Your task to perform on an android device: Open accessibility settings Image 0: 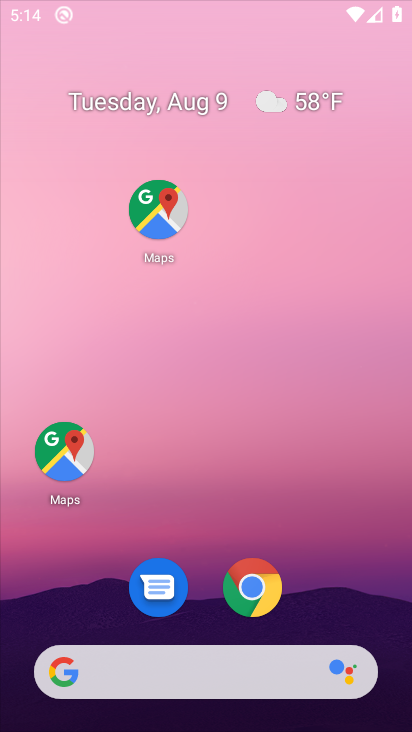
Step 0: drag from (247, 656) to (180, 80)
Your task to perform on an android device: Open accessibility settings Image 1: 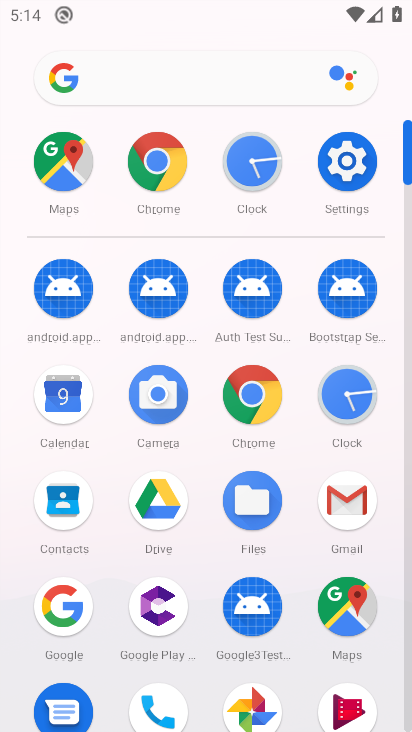
Step 1: click (334, 177)
Your task to perform on an android device: Open accessibility settings Image 2: 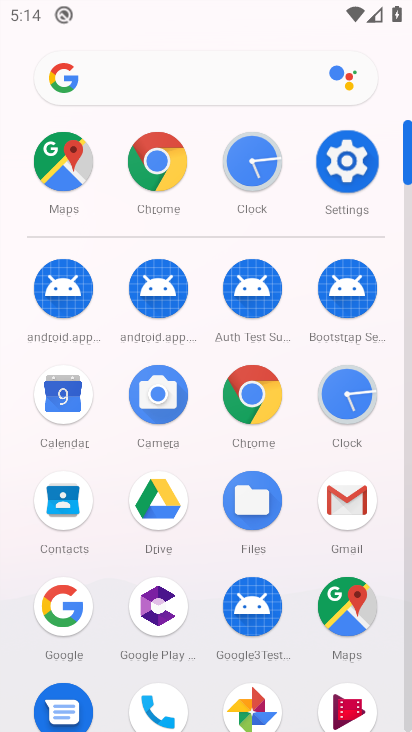
Step 2: click (332, 174)
Your task to perform on an android device: Open accessibility settings Image 3: 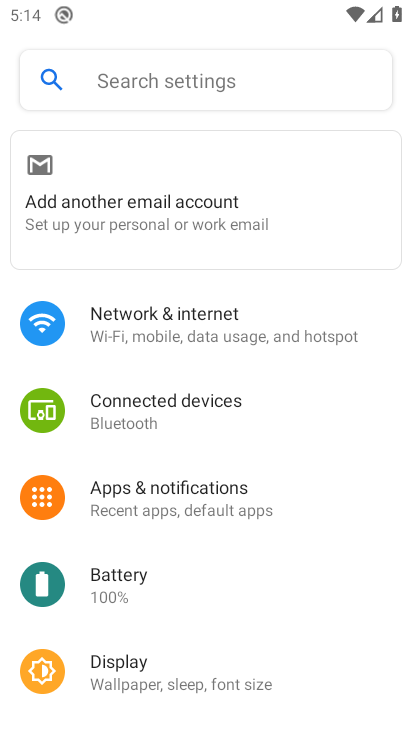
Step 3: drag from (152, 612) to (135, 262)
Your task to perform on an android device: Open accessibility settings Image 4: 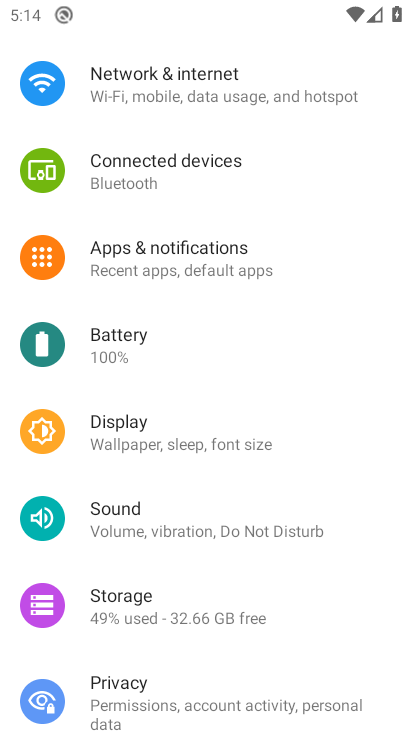
Step 4: drag from (171, 541) to (171, 220)
Your task to perform on an android device: Open accessibility settings Image 5: 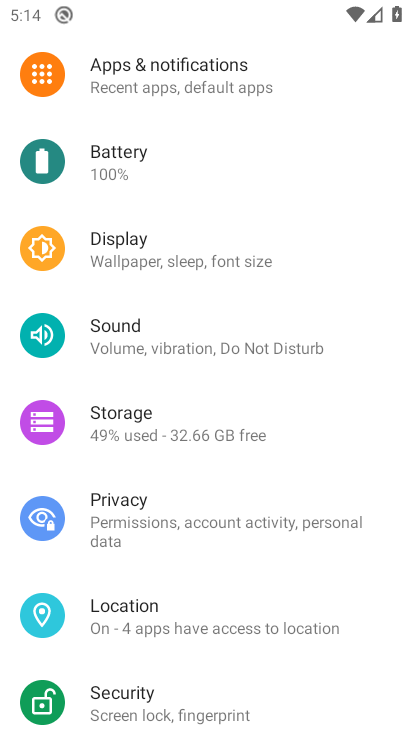
Step 5: drag from (181, 550) to (163, 273)
Your task to perform on an android device: Open accessibility settings Image 6: 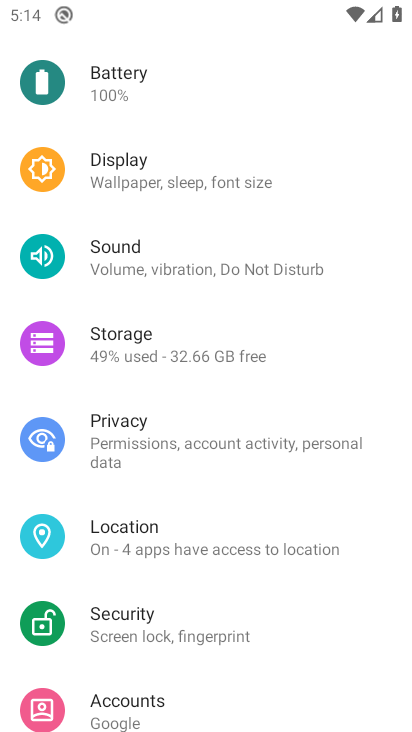
Step 6: drag from (214, 634) to (214, 276)
Your task to perform on an android device: Open accessibility settings Image 7: 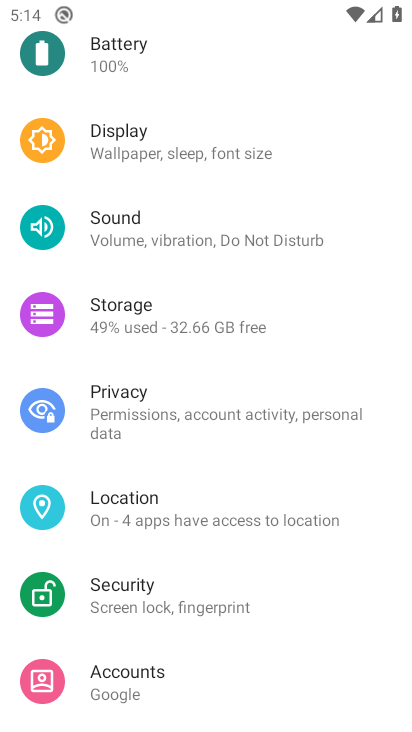
Step 7: drag from (238, 560) to (229, 171)
Your task to perform on an android device: Open accessibility settings Image 8: 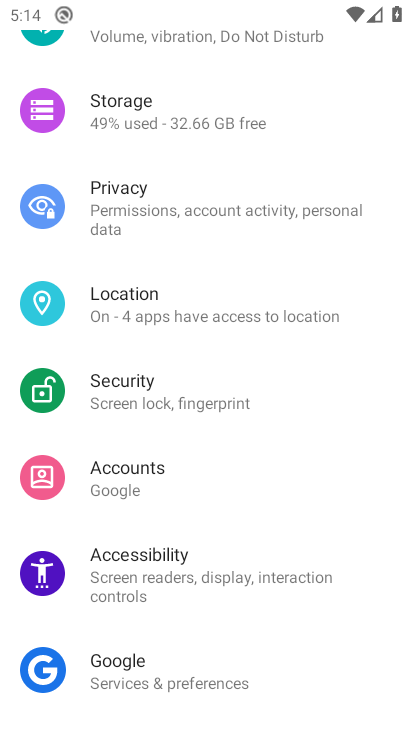
Step 8: drag from (163, 625) to (143, 279)
Your task to perform on an android device: Open accessibility settings Image 9: 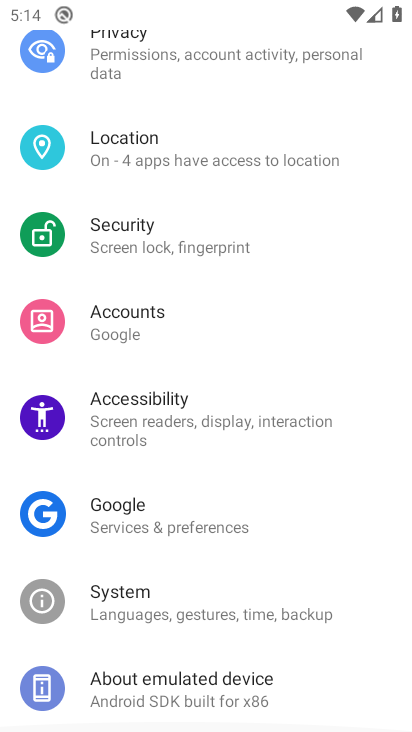
Step 9: drag from (151, 583) to (144, 294)
Your task to perform on an android device: Open accessibility settings Image 10: 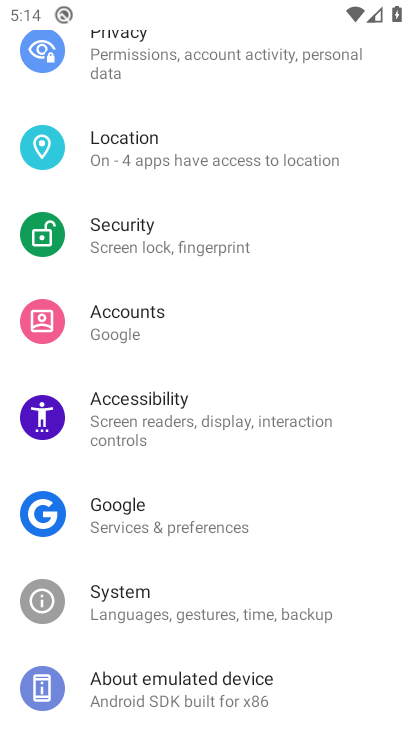
Step 10: click (122, 400)
Your task to perform on an android device: Open accessibility settings Image 11: 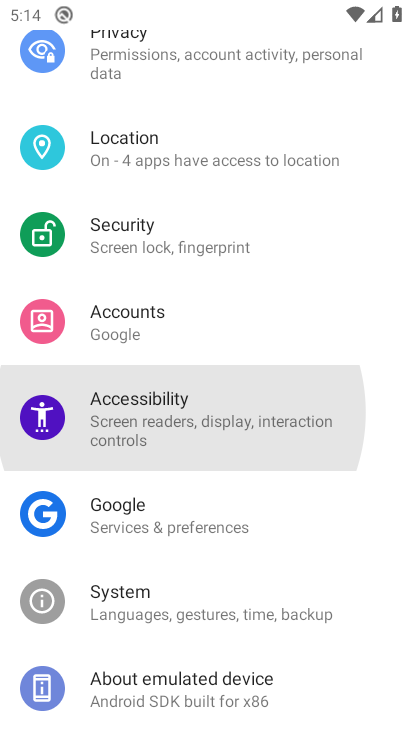
Step 11: click (122, 400)
Your task to perform on an android device: Open accessibility settings Image 12: 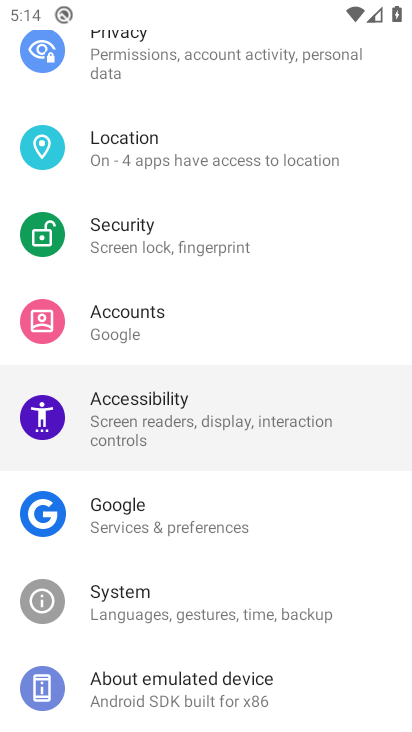
Step 12: click (124, 401)
Your task to perform on an android device: Open accessibility settings Image 13: 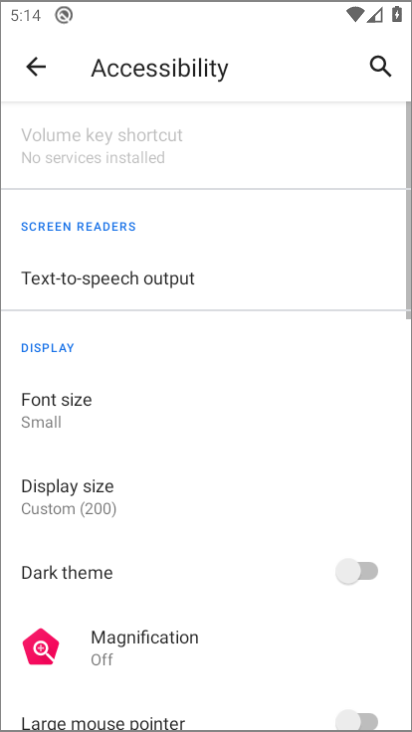
Step 13: click (125, 407)
Your task to perform on an android device: Open accessibility settings Image 14: 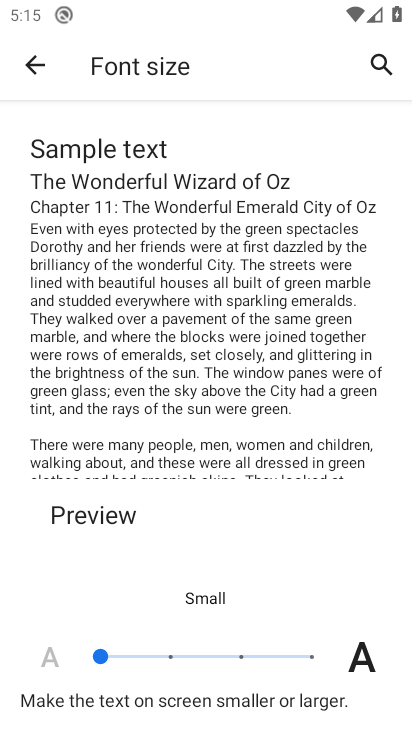
Step 14: click (46, 54)
Your task to perform on an android device: Open accessibility settings Image 15: 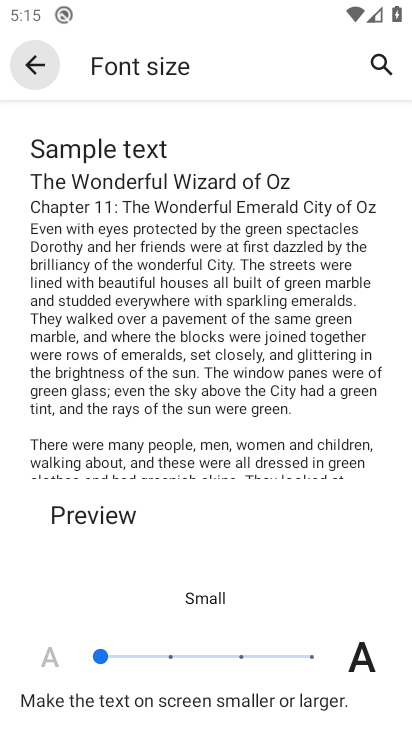
Step 15: click (36, 54)
Your task to perform on an android device: Open accessibility settings Image 16: 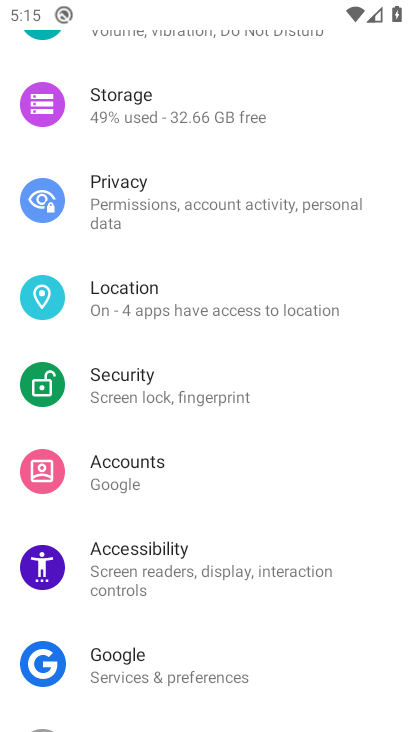
Step 16: click (163, 576)
Your task to perform on an android device: Open accessibility settings Image 17: 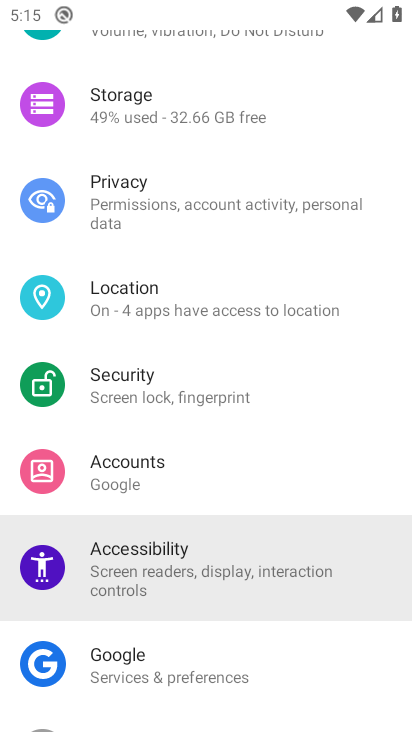
Step 17: click (140, 601)
Your task to perform on an android device: Open accessibility settings Image 18: 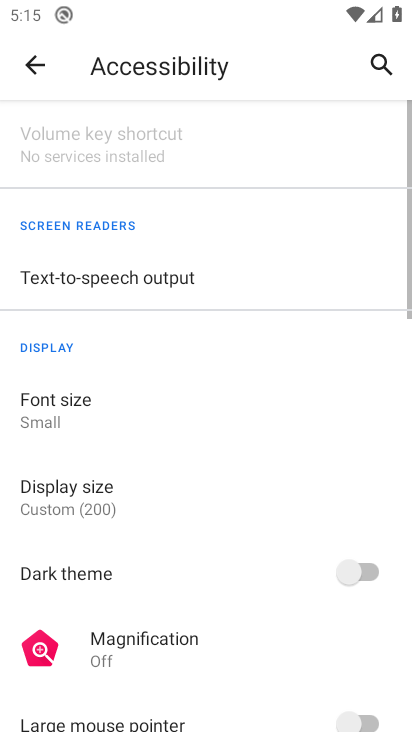
Step 18: task complete